Your task to perform on an android device: Is it going to rain this weekend? Image 0: 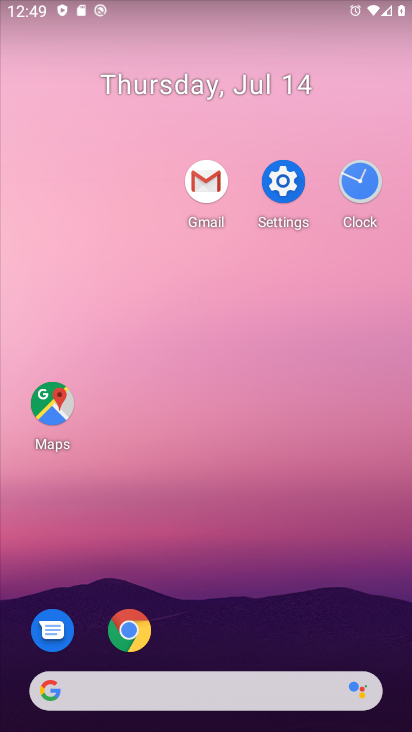
Step 0: click (134, 636)
Your task to perform on an android device: Is it going to rain this weekend? Image 1: 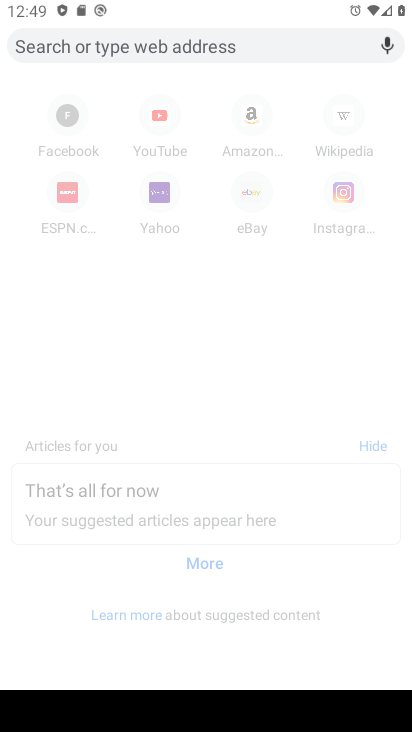
Step 1: click (238, 36)
Your task to perform on an android device: Is it going to rain this weekend? Image 2: 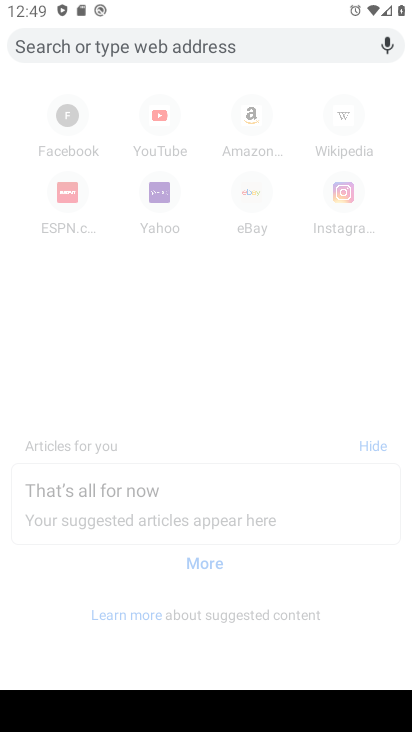
Step 2: click (275, 49)
Your task to perform on an android device: Is it going to rain this weekend? Image 3: 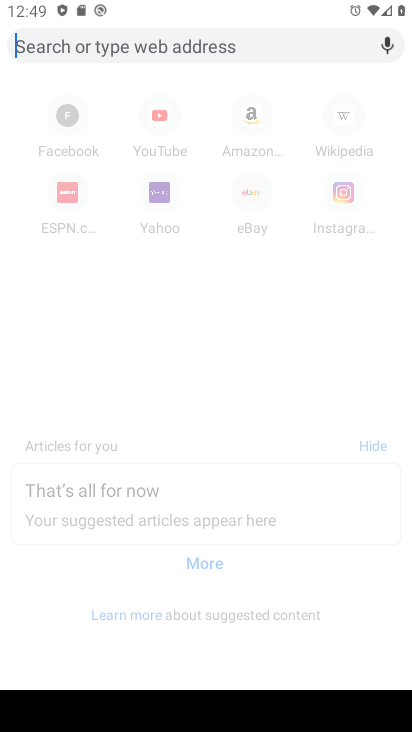
Step 3: type "weather"
Your task to perform on an android device: Is it going to rain this weekend? Image 4: 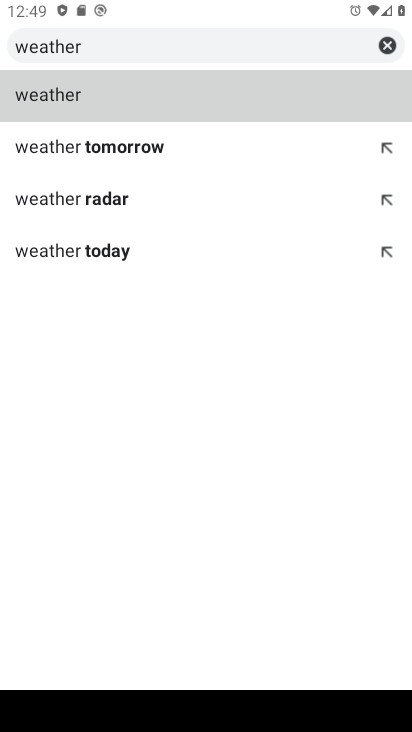
Step 4: click (130, 78)
Your task to perform on an android device: Is it going to rain this weekend? Image 5: 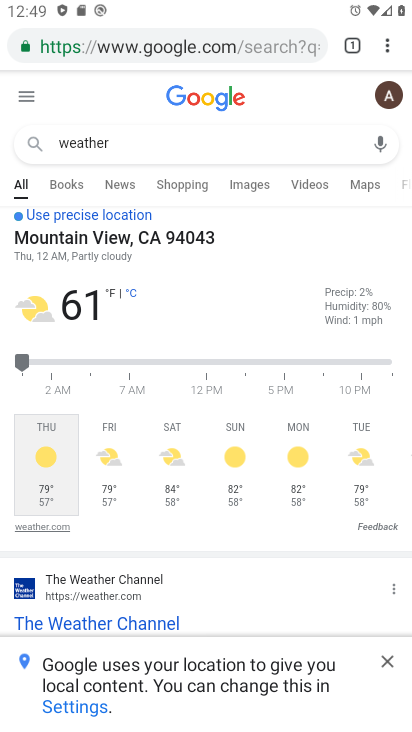
Step 5: click (116, 428)
Your task to perform on an android device: Is it going to rain this weekend? Image 6: 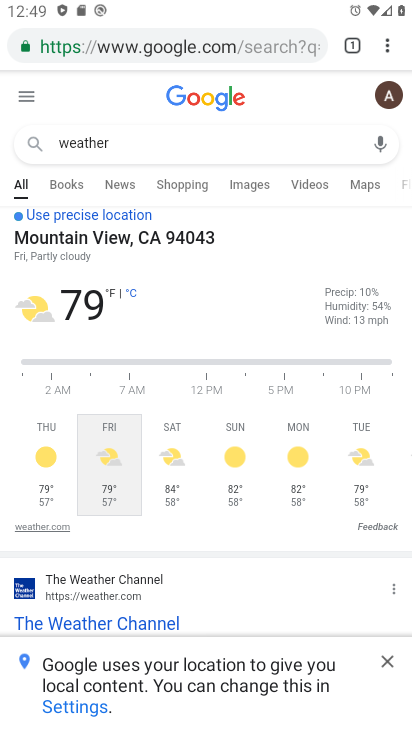
Step 6: task complete